Your task to perform on an android device: Search for "usb-c to usb-b" on walmart, select the first entry, and add it to the cart. Image 0: 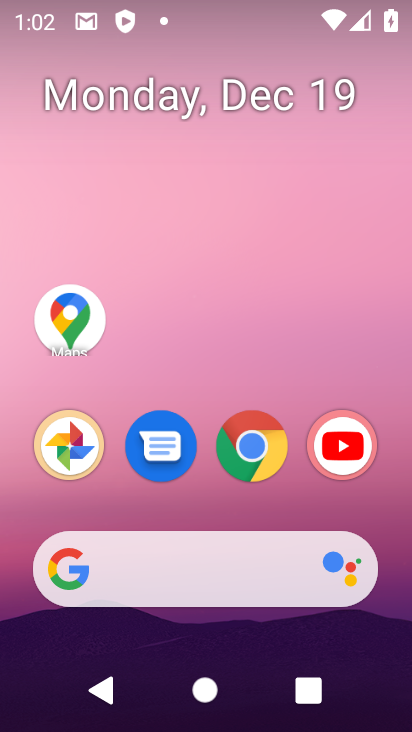
Step 0: click (228, 438)
Your task to perform on an android device: Search for "usb-c to usb-b" on walmart, select the first entry, and add it to the cart. Image 1: 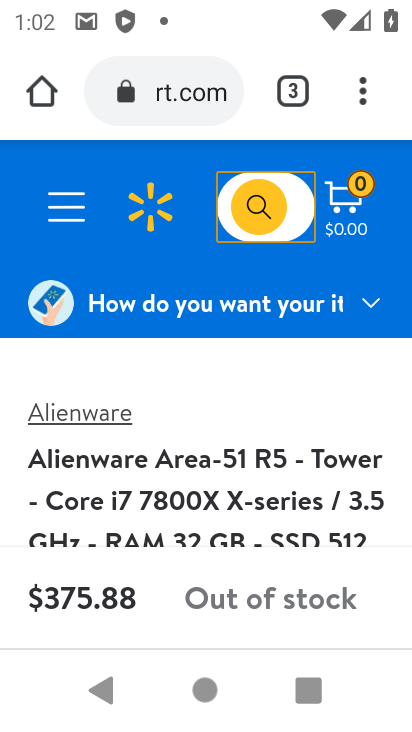
Step 1: click (180, 102)
Your task to perform on an android device: Search for "usb-c to usb-b" on walmart, select the first entry, and add it to the cart. Image 2: 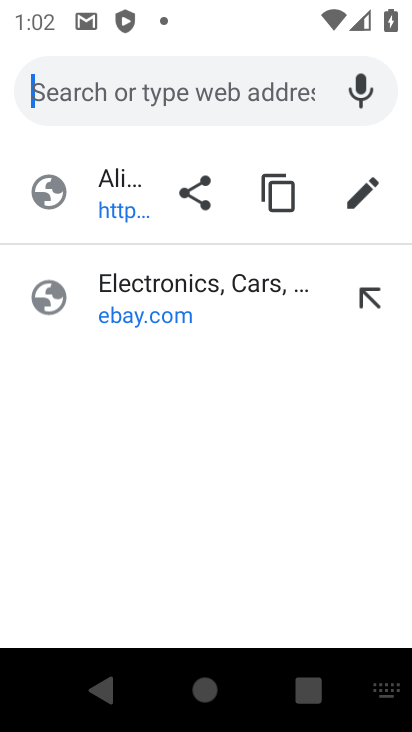
Step 2: type "walmart"
Your task to perform on an android device: Search for "usb-c to usb-b" on walmart, select the first entry, and add it to the cart. Image 3: 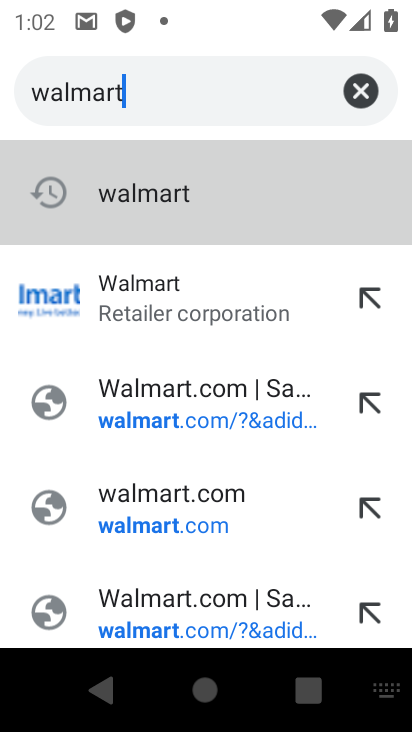
Step 3: click (178, 277)
Your task to perform on an android device: Search for "usb-c to usb-b" on walmart, select the first entry, and add it to the cart. Image 4: 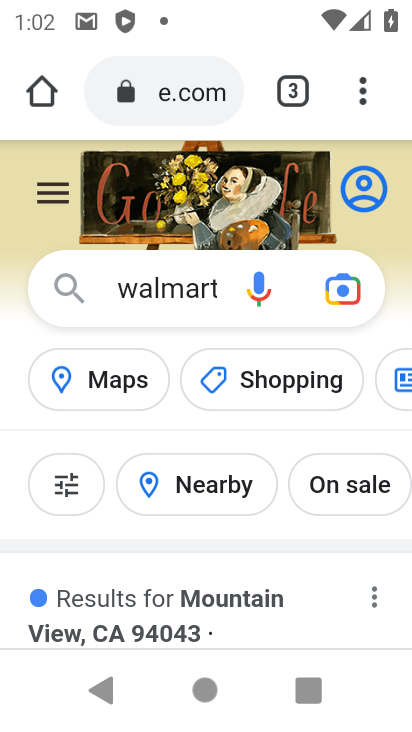
Step 4: drag from (278, 624) to (155, 212)
Your task to perform on an android device: Search for "usb-c to usb-b" on walmart, select the first entry, and add it to the cart. Image 5: 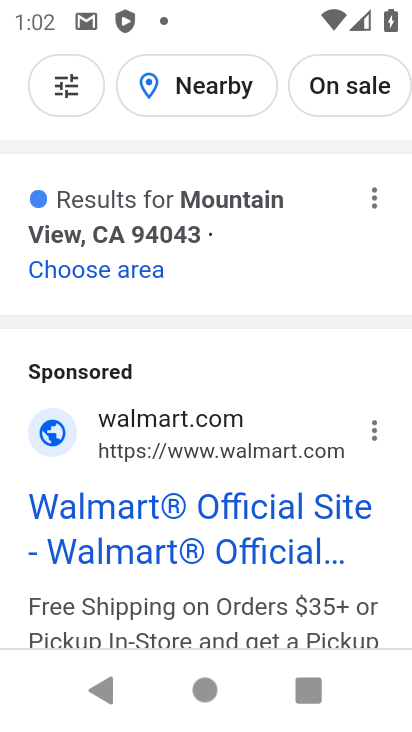
Step 5: click (259, 539)
Your task to perform on an android device: Search for "usb-c to usb-b" on walmart, select the first entry, and add it to the cart. Image 6: 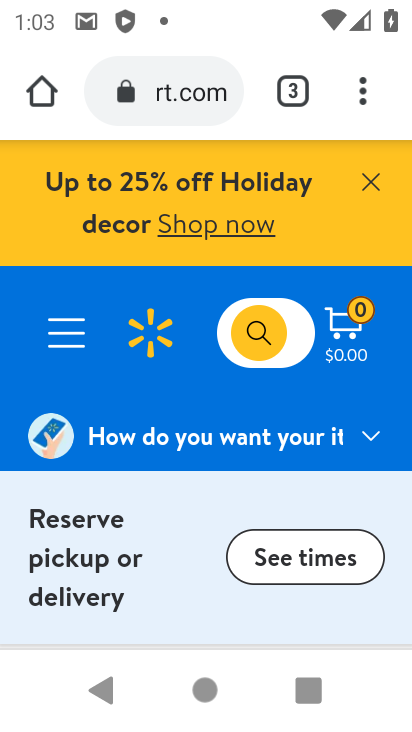
Step 6: click (375, 183)
Your task to perform on an android device: Search for "usb-c to usb-b" on walmart, select the first entry, and add it to the cart. Image 7: 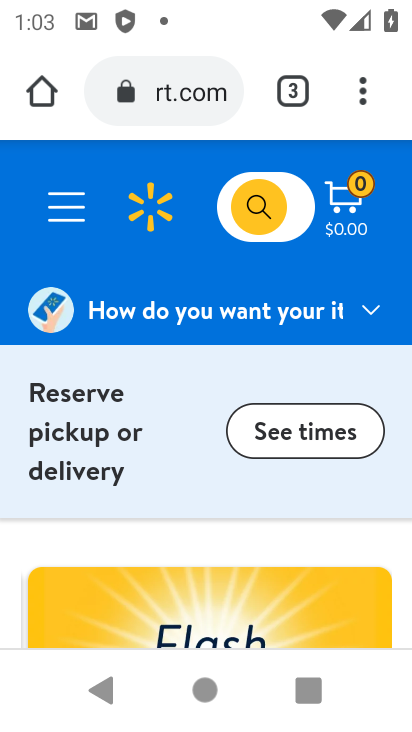
Step 7: click (260, 218)
Your task to perform on an android device: Search for "usb-c to usb-b" on walmart, select the first entry, and add it to the cart. Image 8: 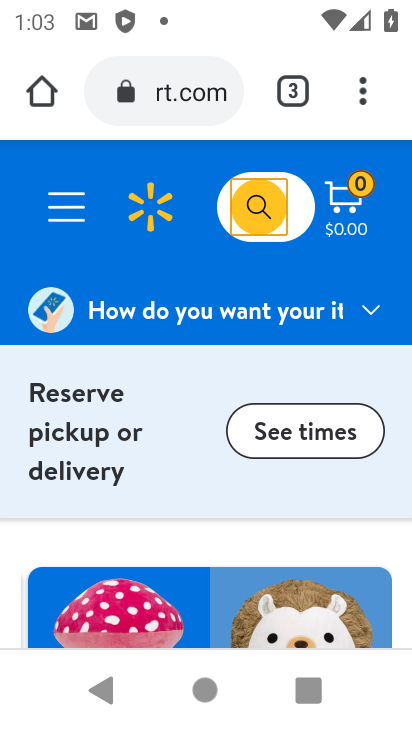
Step 8: click (260, 218)
Your task to perform on an android device: Search for "usb-c to usb-b" on walmart, select the first entry, and add it to the cart. Image 9: 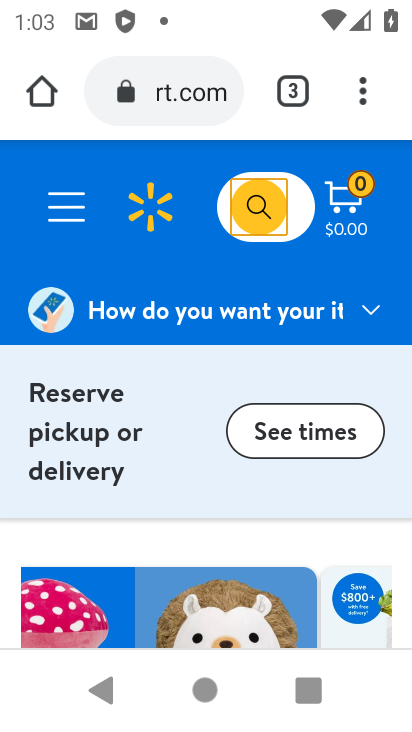
Step 9: click (220, 218)
Your task to perform on an android device: Search for "usb-c to usb-b" on walmart, select the first entry, and add it to the cart. Image 10: 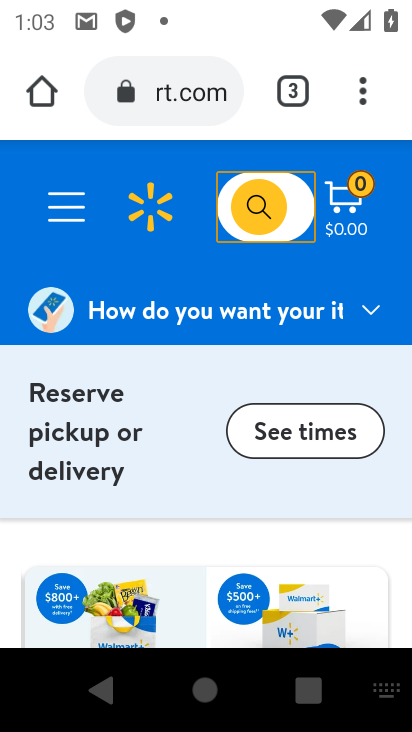
Step 10: click (228, 219)
Your task to perform on an android device: Search for "usb-c to usb-b" on walmart, select the first entry, and add it to the cart. Image 11: 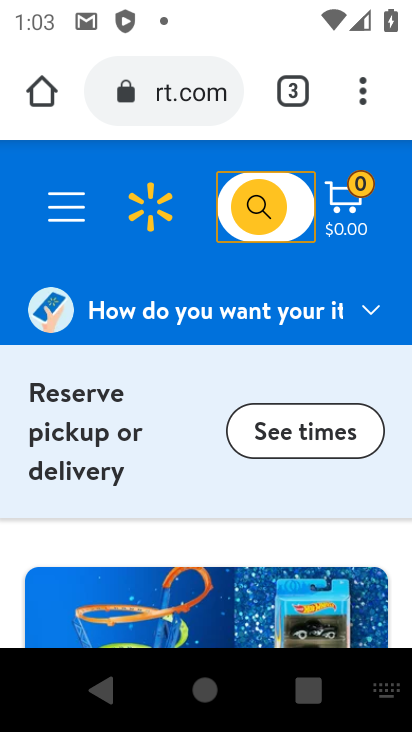
Step 11: click (228, 219)
Your task to perform on an android device: Search for "usb-c to usb-b" on walmart, select the first entry, and add it to the cart. Image 12: 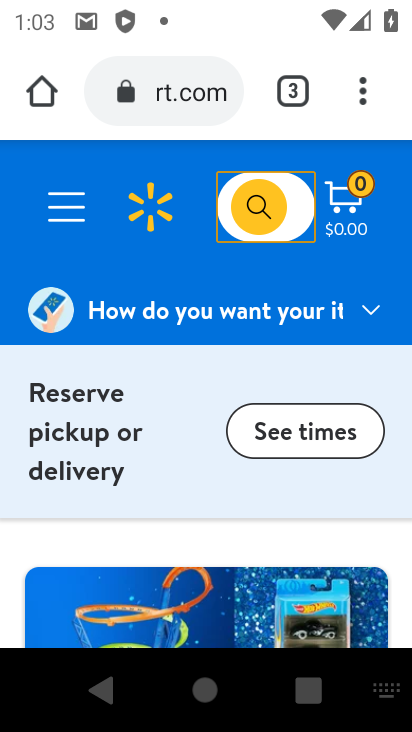
Step 12: click (228, 219)
Your task to perform on an android device: Search for "usb-c to usb-b" on walmart, select the first entry, and add it to the cart. Image 13: 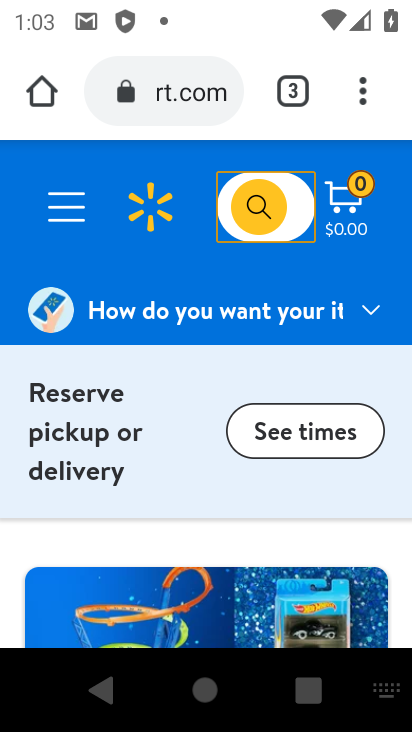
Step 13: click (295, 208)
Your task to perform on an android device: Search for "usb-c to usb-b" on walmart, select the first entry, and add it to the cart. Image 14: 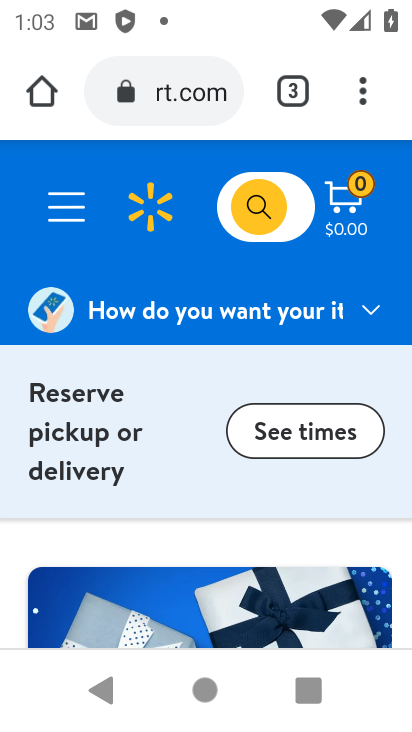
Step 14: click (273, 212)
Your task to perform on an android device: Search for "usb-c to usb-b" on walmart, select the first entry, and add it to the cart. Image 15: 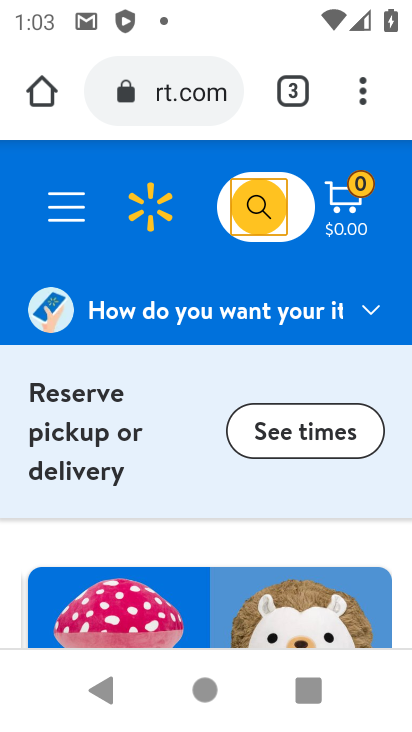
Step 15: type "usb-c to usb-b"
Your task to perform on an android device: Search for "usb-c to usb-b" on walmart, select the first entry, and add it to the cart. Image 16: 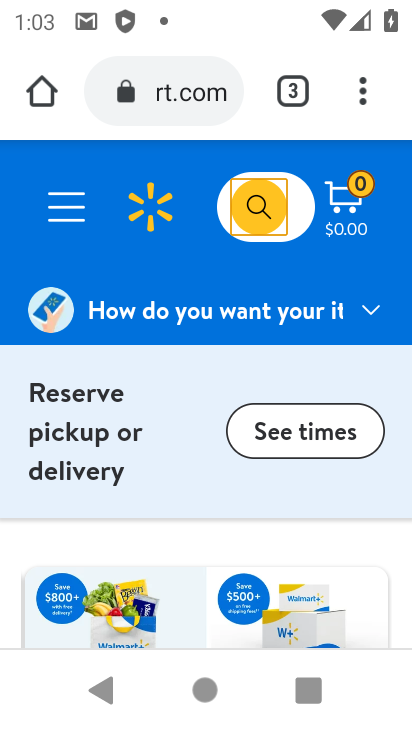
Step 16: task complete